Your task to perform on an android device: toggle pop-ups in chrome Image 0: 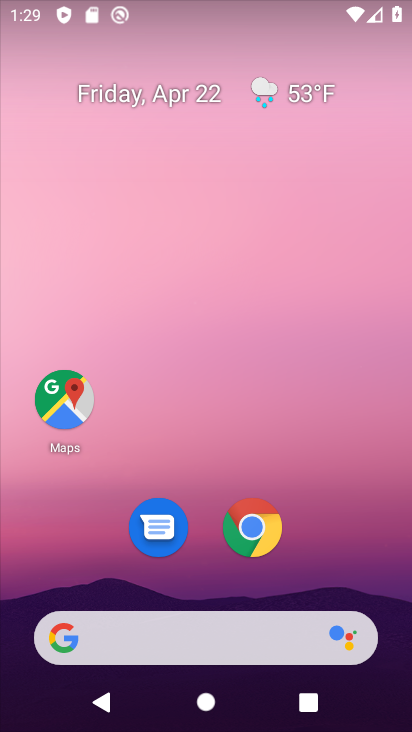
Step 0: click (241, 534)
Your task to perform on an android device: toggle pop-ups in chrome Image 1: 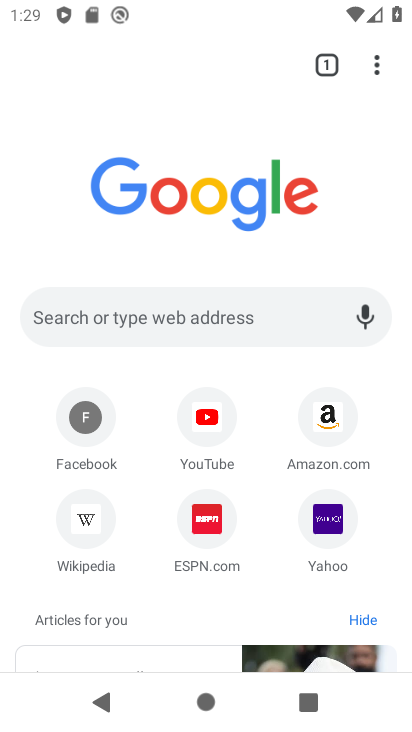
Step 1: click (383, 72)
Your task to perform on an android device: toggle pop-ups in chrome Image 2: 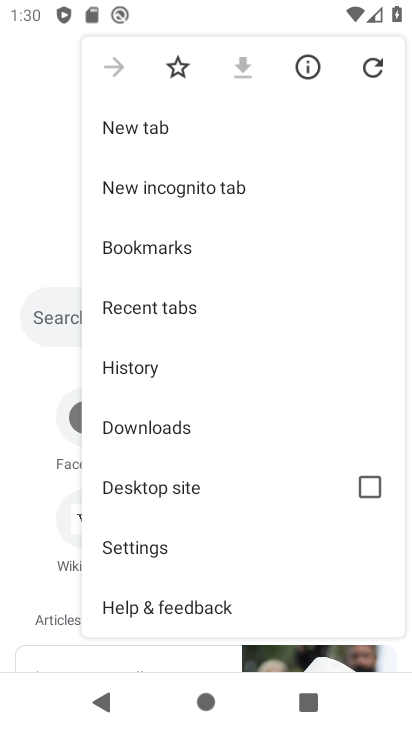
Step 2: click (188, 548)
Your task to perform on an android device: toggle pop-ups in chrome Image 3: 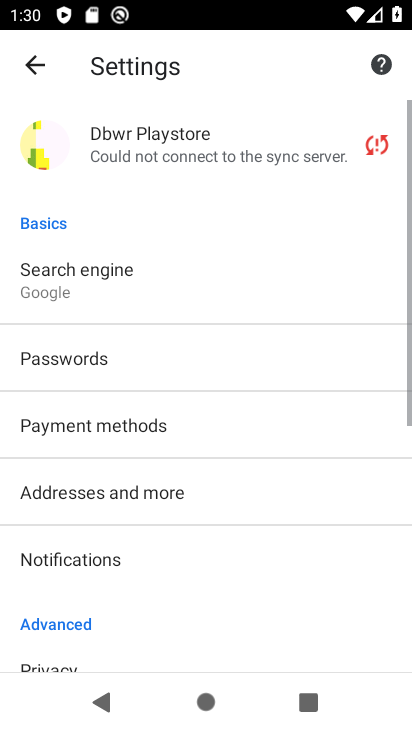
Step 3: drag from (183, 624) to (161, 134)
Your task to perform on an android device: toggle pop-ups in chrome Image 4: 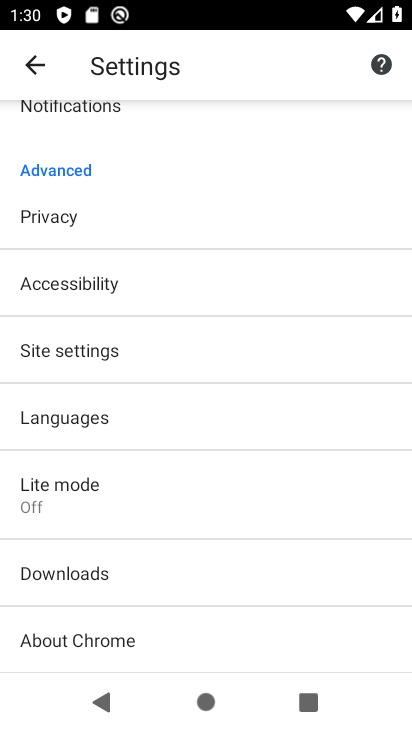
Step 4: click (132, 349)
Your task to perform on an android device: toggle pop-ups in chrome Image 5: 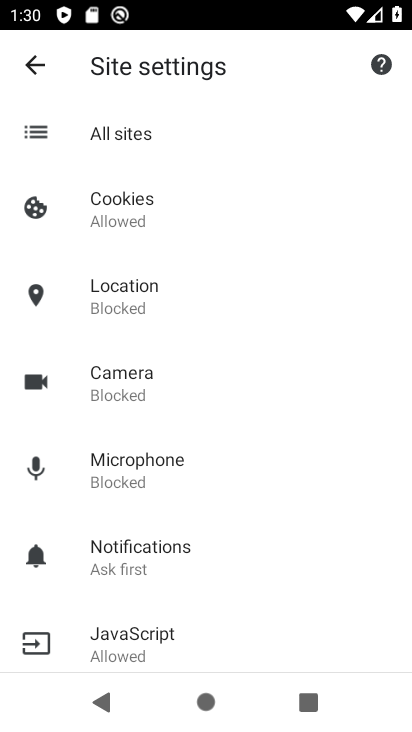
Step 5: drag from (133, 591) to (134, 495)
Your task to perform on an android device: toggle pop-ups in chrome Image 6: 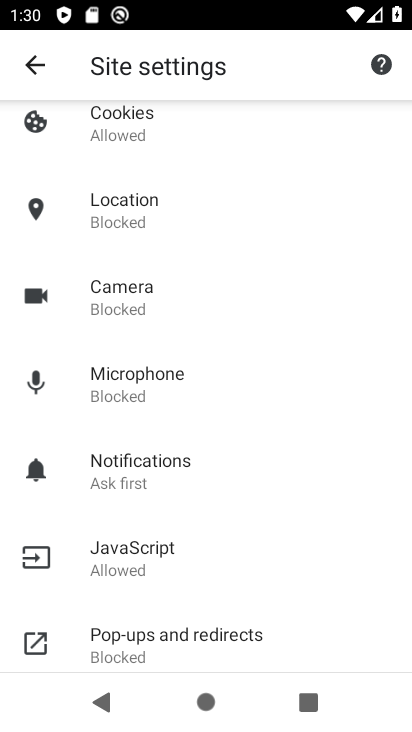
Step 6: click (114, 643)
Your task to perform on an android device: toggle pop-ups in chrome Image 7: 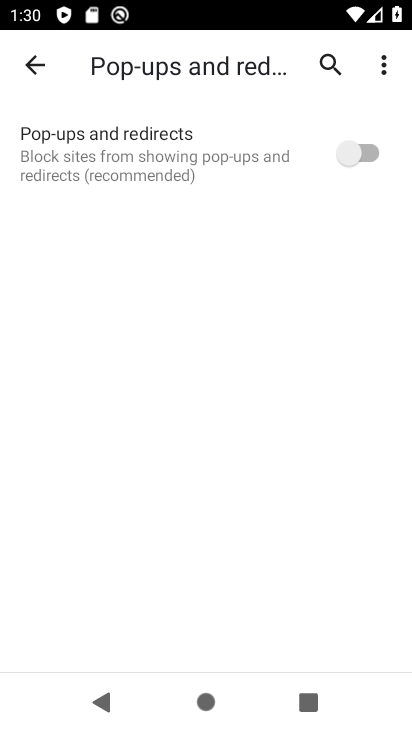
Step 7: click (368, 158)
Your task to perform on an android device: toggle pop-ups in chrome Image 8: 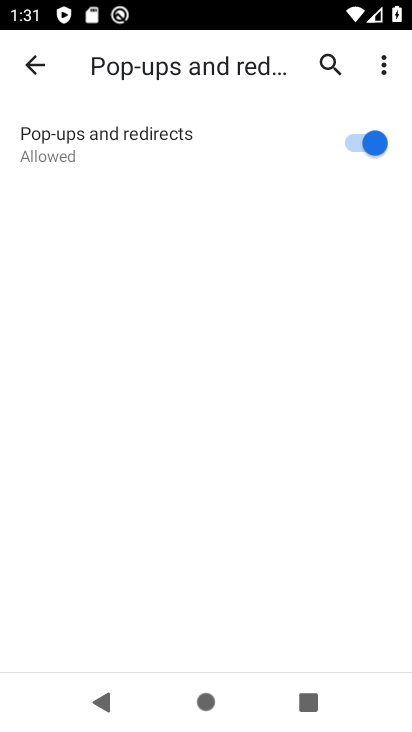
Step 8: task complete